Your task to perform on an android device: change the clock display to digital Image 0: 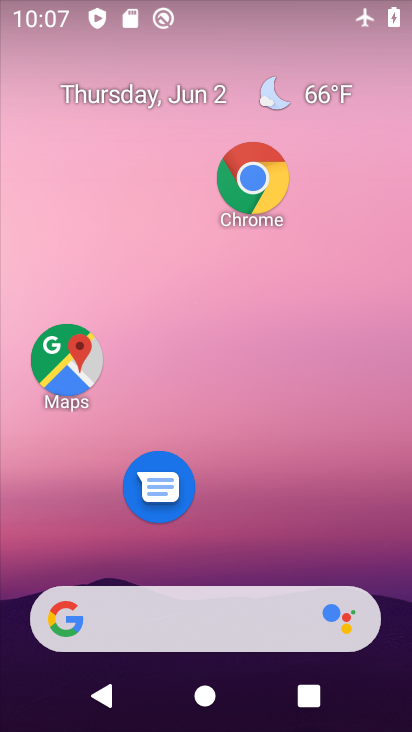
Step 0: drag from (234, 727) to (236, 143)
Your task to perform on an android device: change the clock display to digital Image 1: 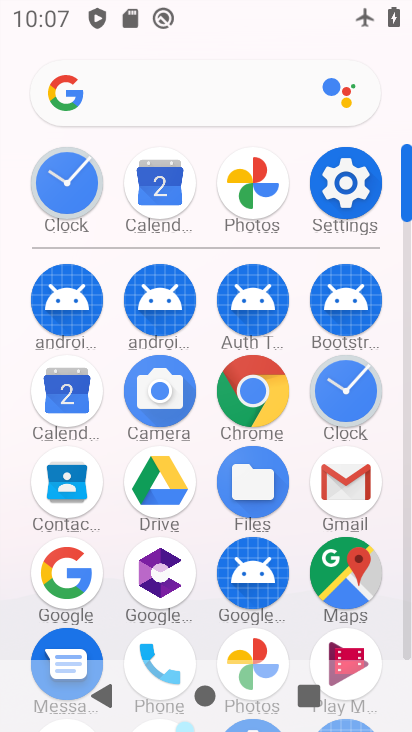
Step 1: click (338, 394)
Your task to perform on an android device: change the clock display to digital Image 2: 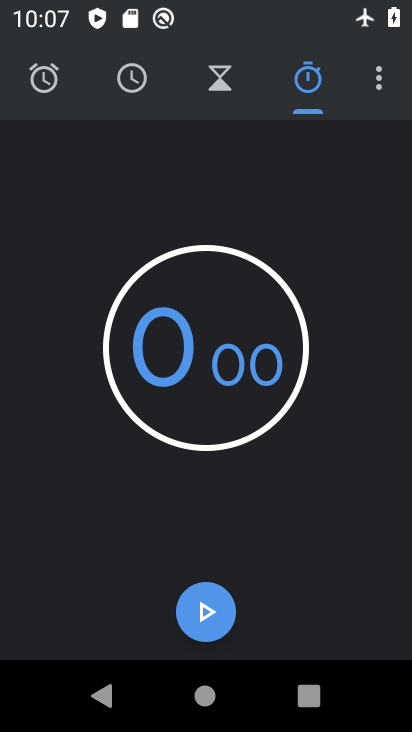
Step 2: click (380, 86)
Your task to perform on an android device: change the clock display to digital Image 3: 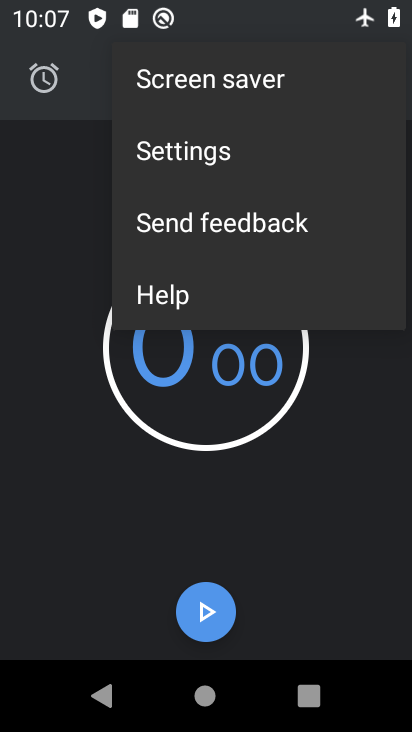
Step 3: click (191, 149)
Your task to perform on an android device: change the clock display to digital Image 4: 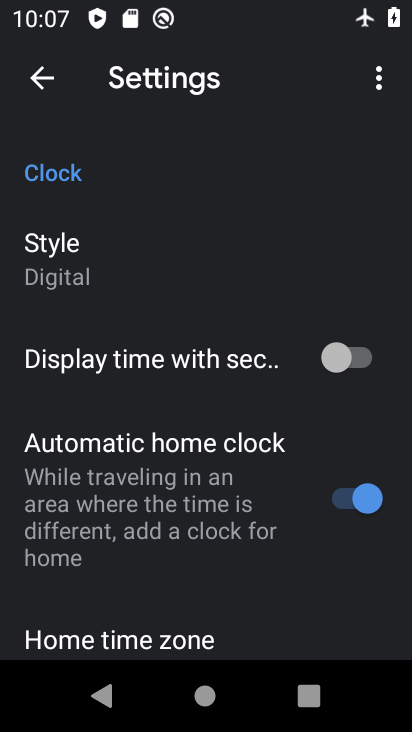
Step 4: task complete